Your task to perform on an android device: Open the stopwatch Image 0: 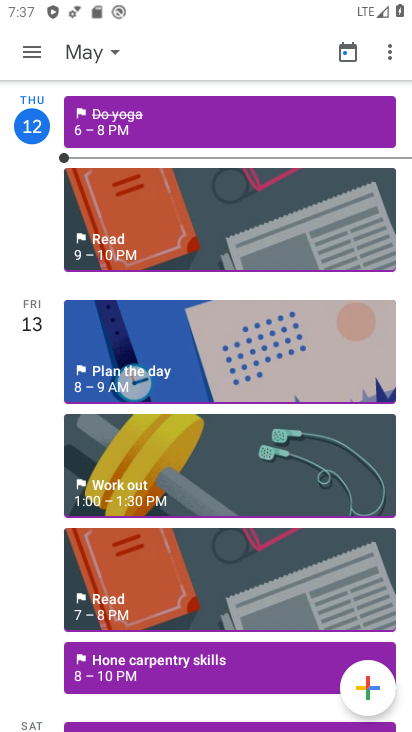
Step 0: press home button
Your task to perform on an android device: Open the stopwatch Image 1: 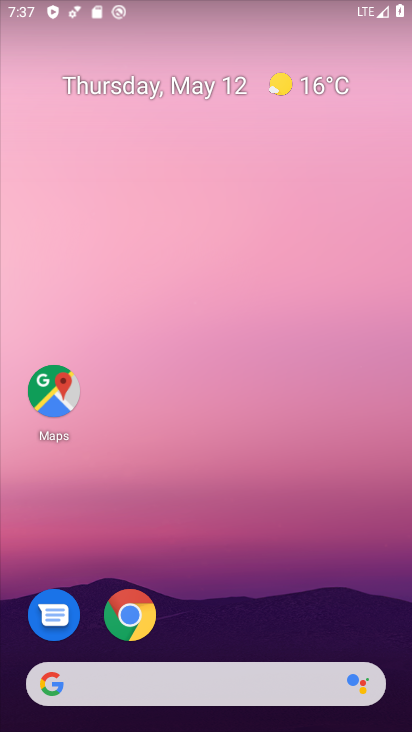
Step 1: drag from (255, 584) to (213, 49)
Your task to perform on an android device: Open the stopwatch Image 2: 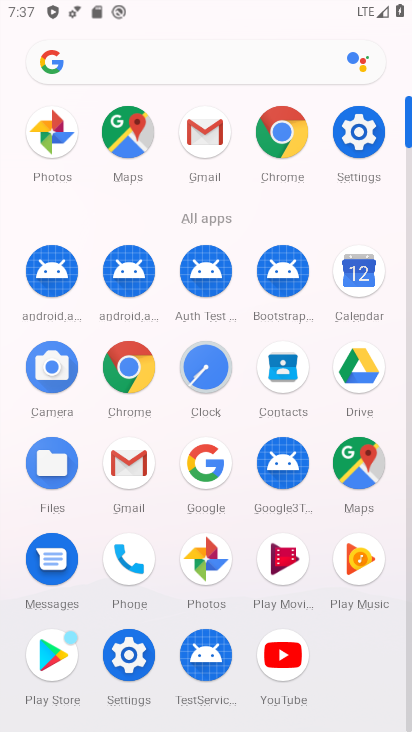
Step 2: click (223, 365)
Your task to perform on an android device: Open the stopwatch Image 3: 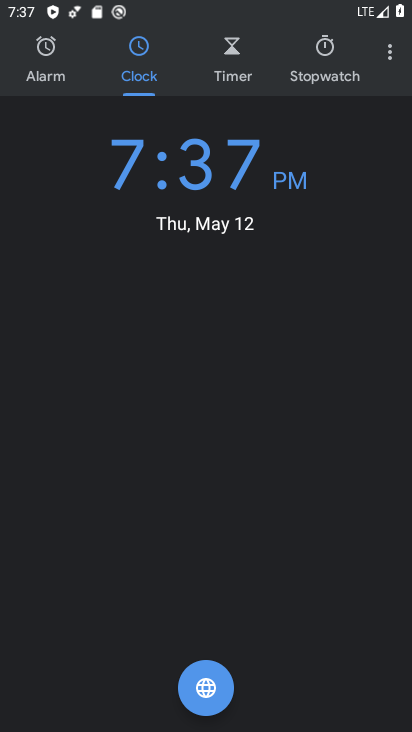
Step 3: click (321, 54)
Your task to perform on an android device: Open the stopwatch Image 4: 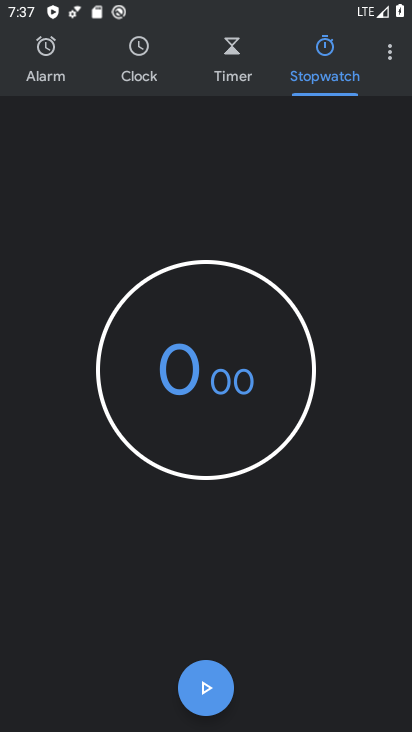
Step 4: task complete